Your task to perform on an android device: Open Chrome and go to the settings page Image 0: 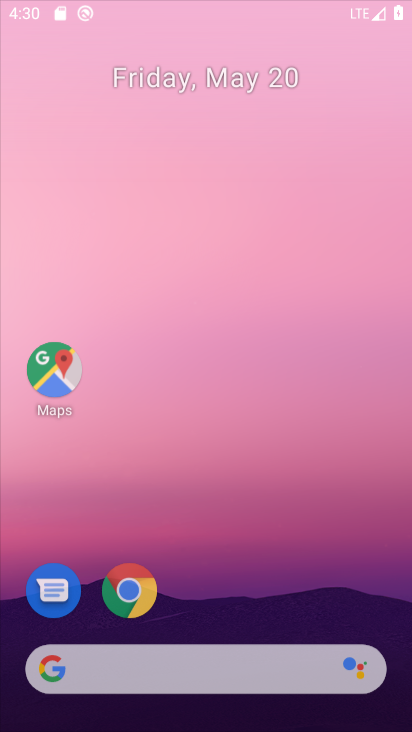
Step 0: click (280, 136)
Your task to perform on an android device: Open Chrome and go to the settings page Image 1: 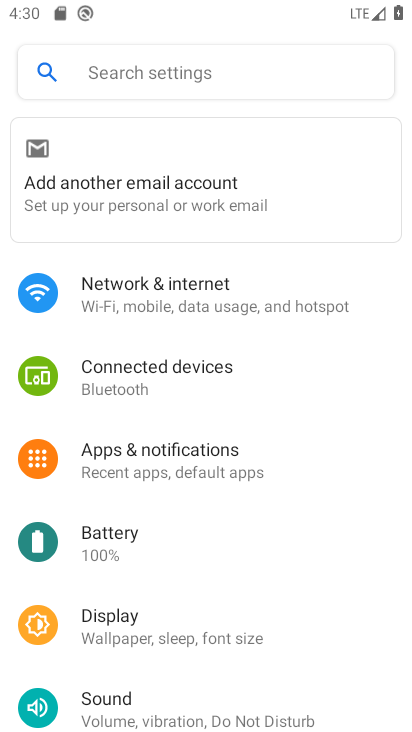
Step 1: press home button
Your task to perform on an android device: Open Chrome and go to the settings page Image 2: 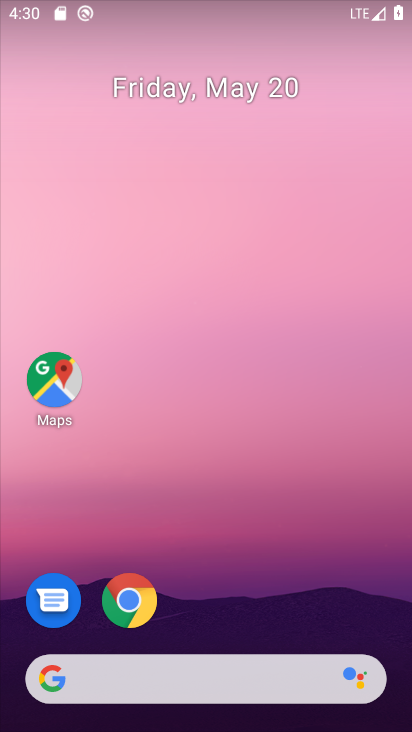
Step 2: click (117, 599)
Your task to perform on an android device: Open Chrome and go to the settings page Image 3: 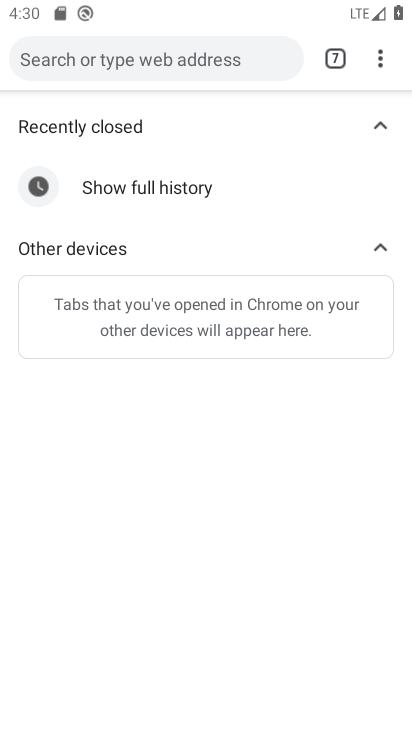
Step 3: click (385, 43)
Your task to perform on an android device: Open Chrome and go to the settings page Image 4: 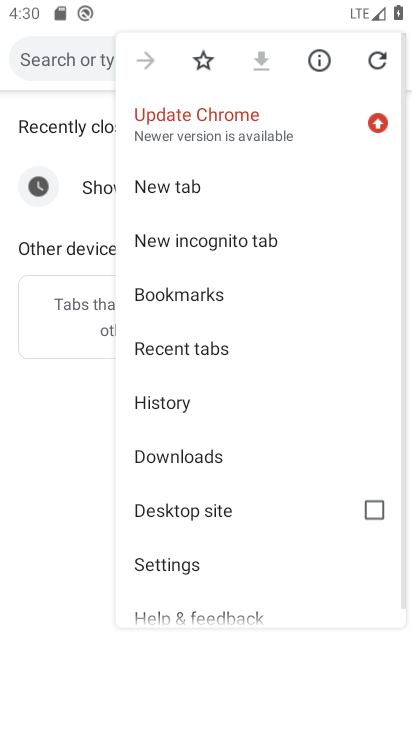
Step 4: click (258, 573)
Your task to perform on an android device: Open Chrome and go to the settings page Image 5: 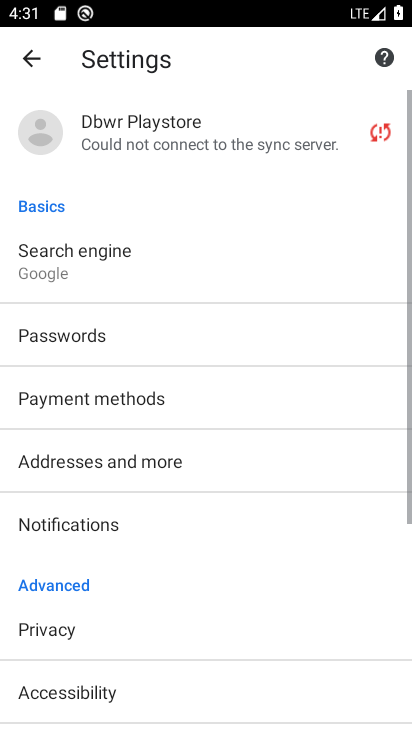
Step 5: task complete